Your task to perform on an android device: Clear all items from cart on amazon.com. Add "lg ultragear" to the cart on amazon.com, then select checkout. Image 0: 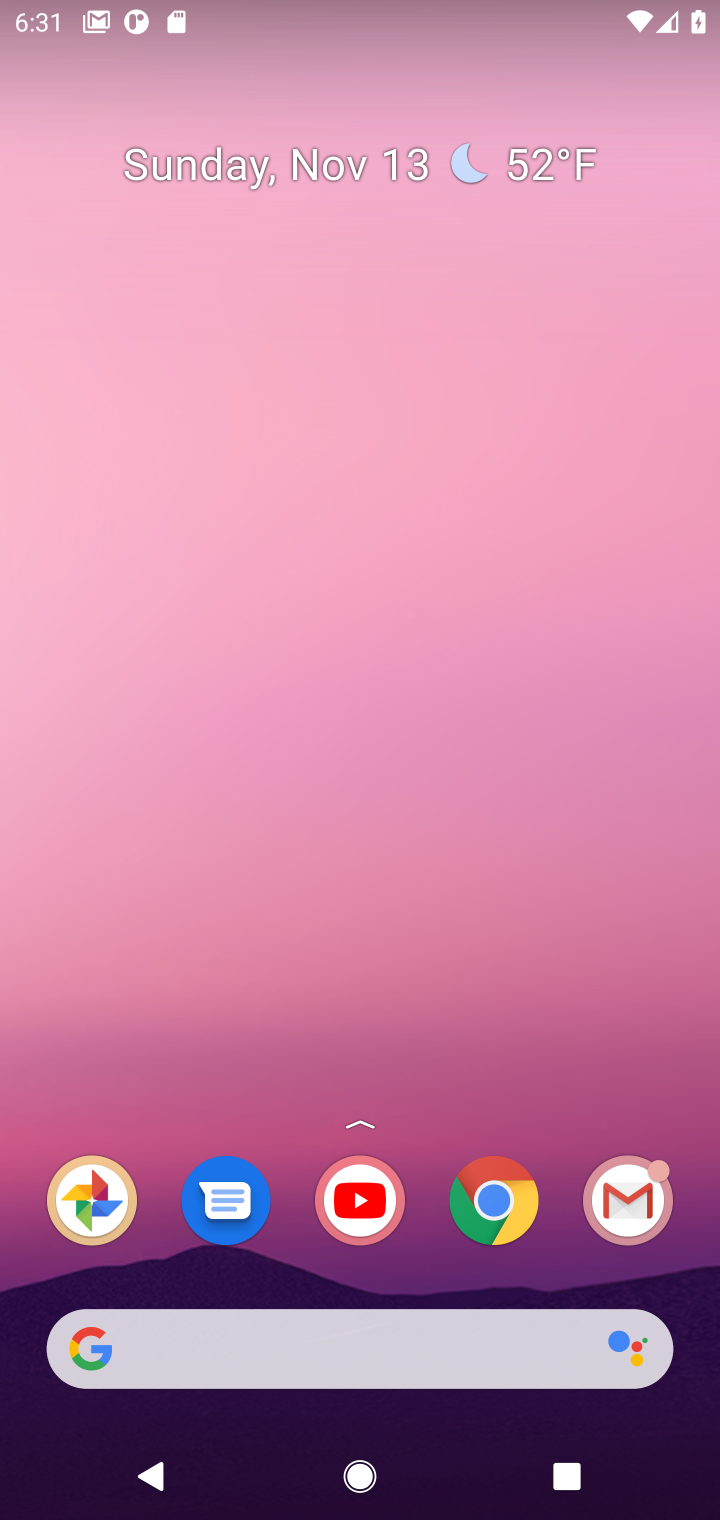
Step 0: click (502, 1188)
Your task to perform on an android device: Clear all items from cart on amazon.com. Add "lg ultragear" to the cart on amazon.com, then select checkout. Image 1: 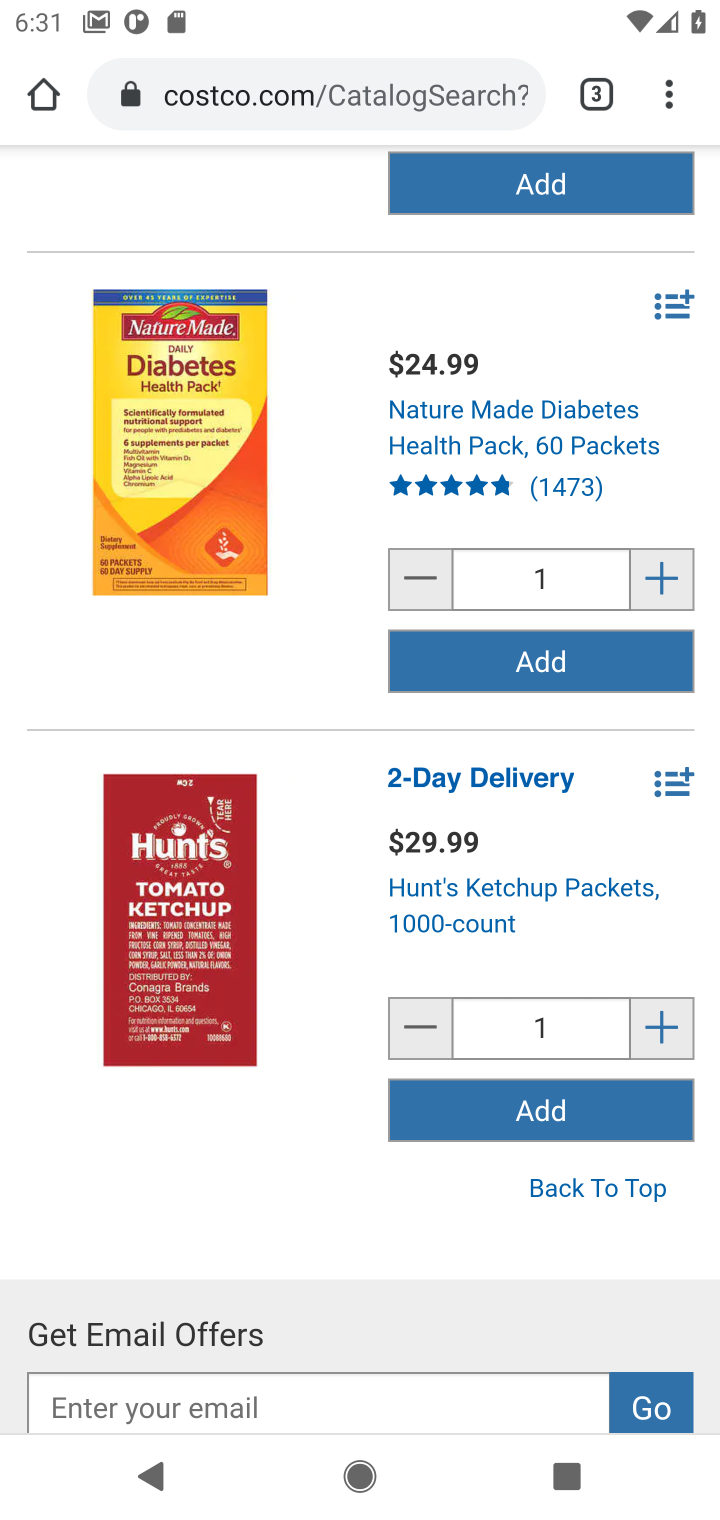
Step 1: click (595, 97)
Your task to perform on an android device: Clear all items from cart on amazon.com. Add "lg ultragear" to the cart on amazon.com, then select checkout. Image 2: 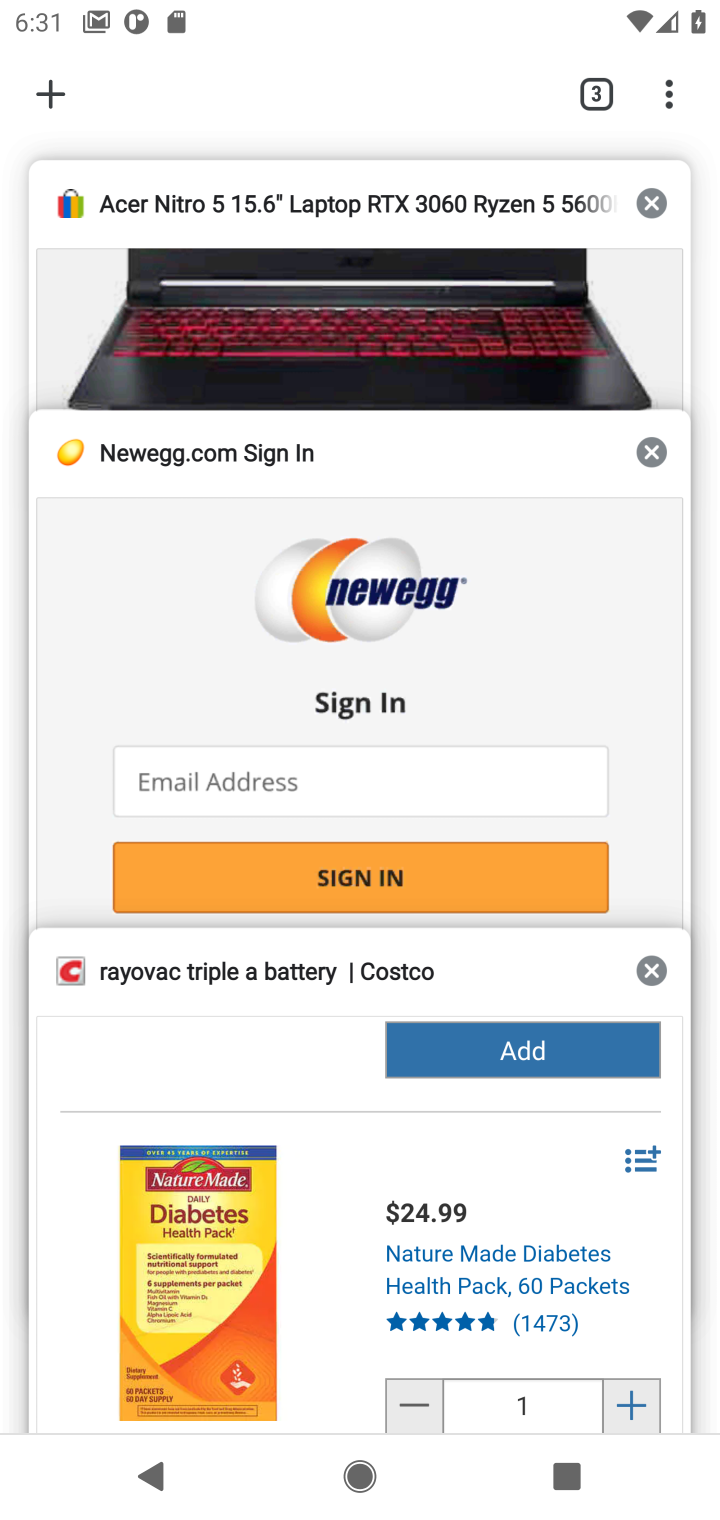
Step 2: click (50, 84)
Your task to perform on an android device: Clear all items from cart on amazon.com. Add "lg ultragear" to the cart on amazon.com, then select checkout. Image 3: 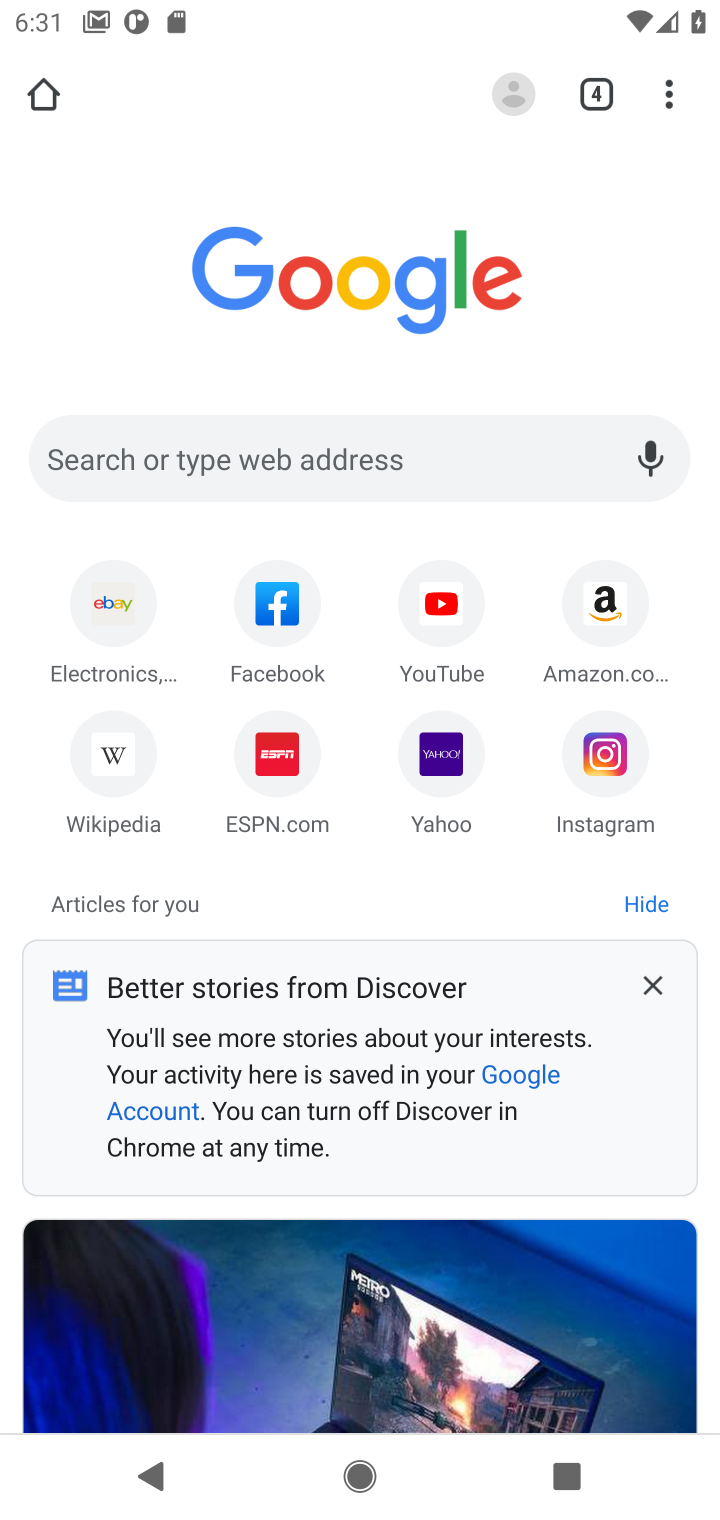
Step 3: click (612, 599)
Your task to perform on an android device: Clear all items from cart on amazon.com. Add "lg ultragear" to the cart on amazon.com, then select checkout. Image 4: 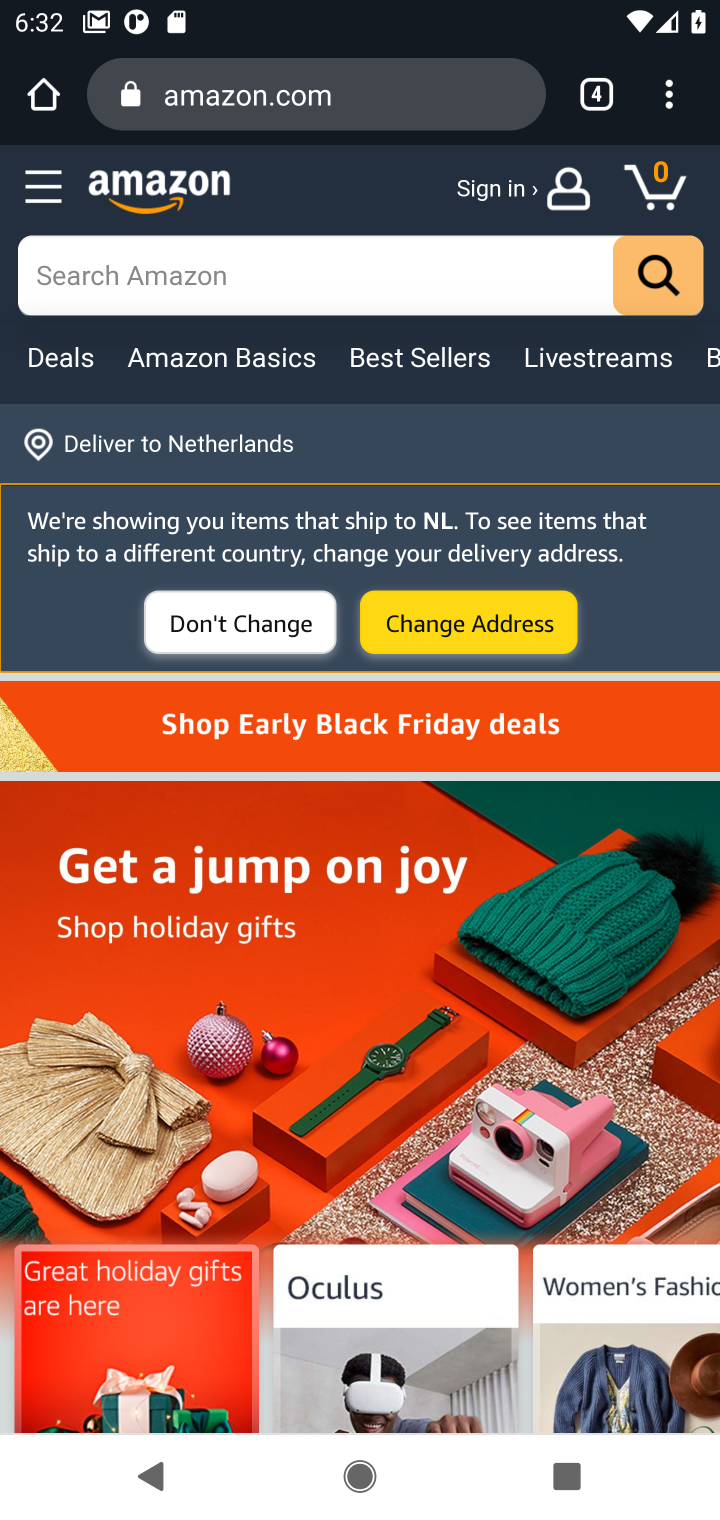
Step 4: click (151, 264)
Your task to perform on an android device: Clear all items from cart on amazon.com. Add "lg ultragear" to the cart on amazon.com, then select checkout. Image 5: 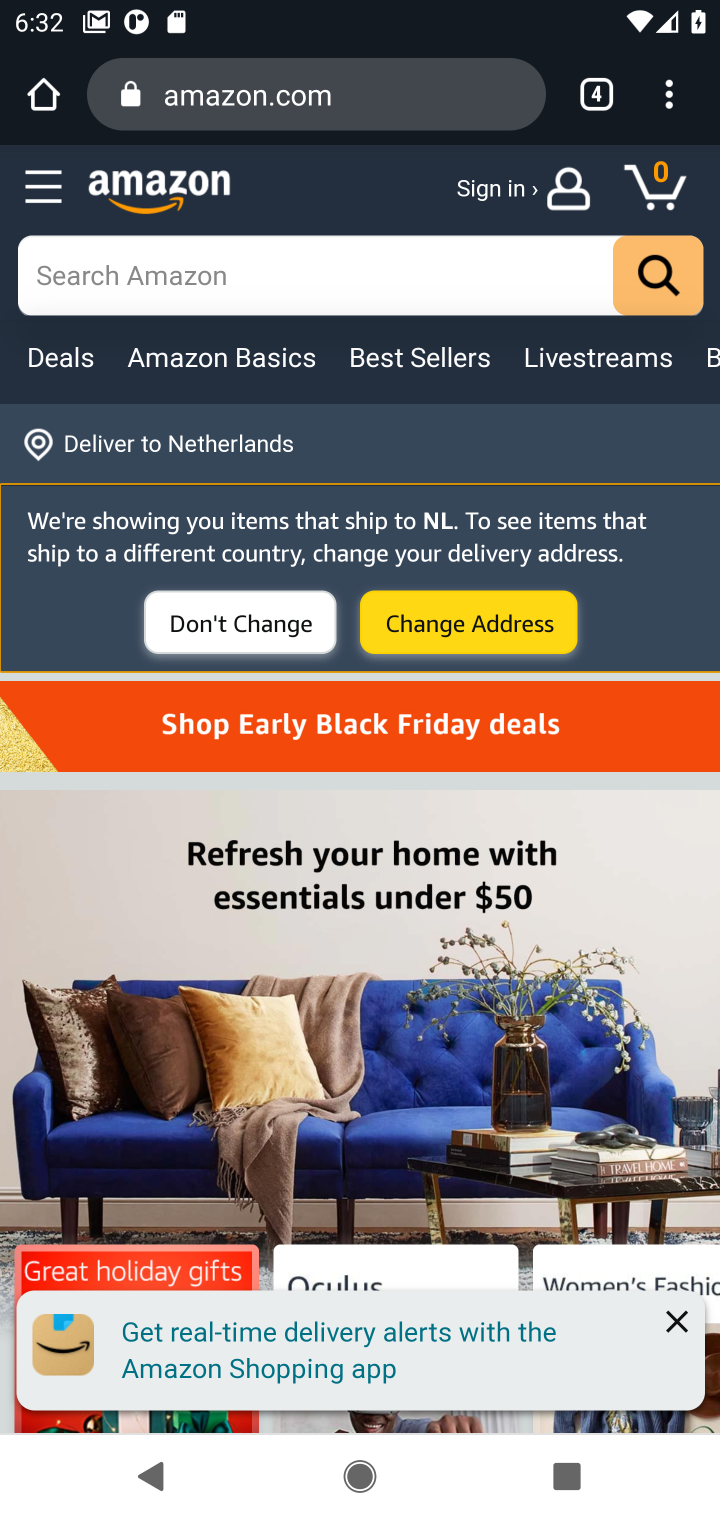
Step 5: type "lg ultragear"
Your task to perform on an android device: Clear all items from cart on amazon.com. Add "lg ultragear" to the cart on amazon.com, then select checkout. Image 6: 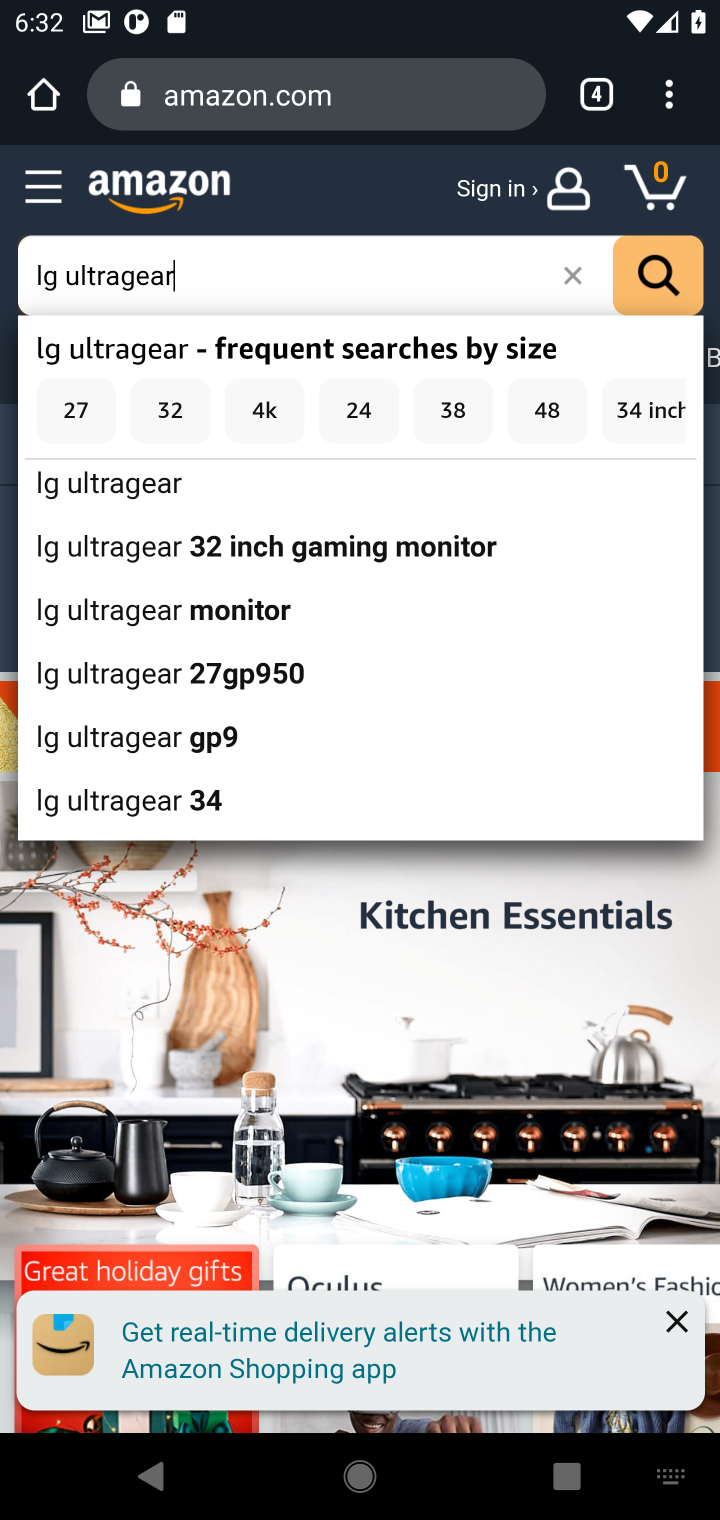
Step 6: click (104, 482)
Your task to perform on an android device: Clear all items from cart on amazon.com. Add "lg ultragear" to the cart on amazon.com, then select checkout. Image 7: 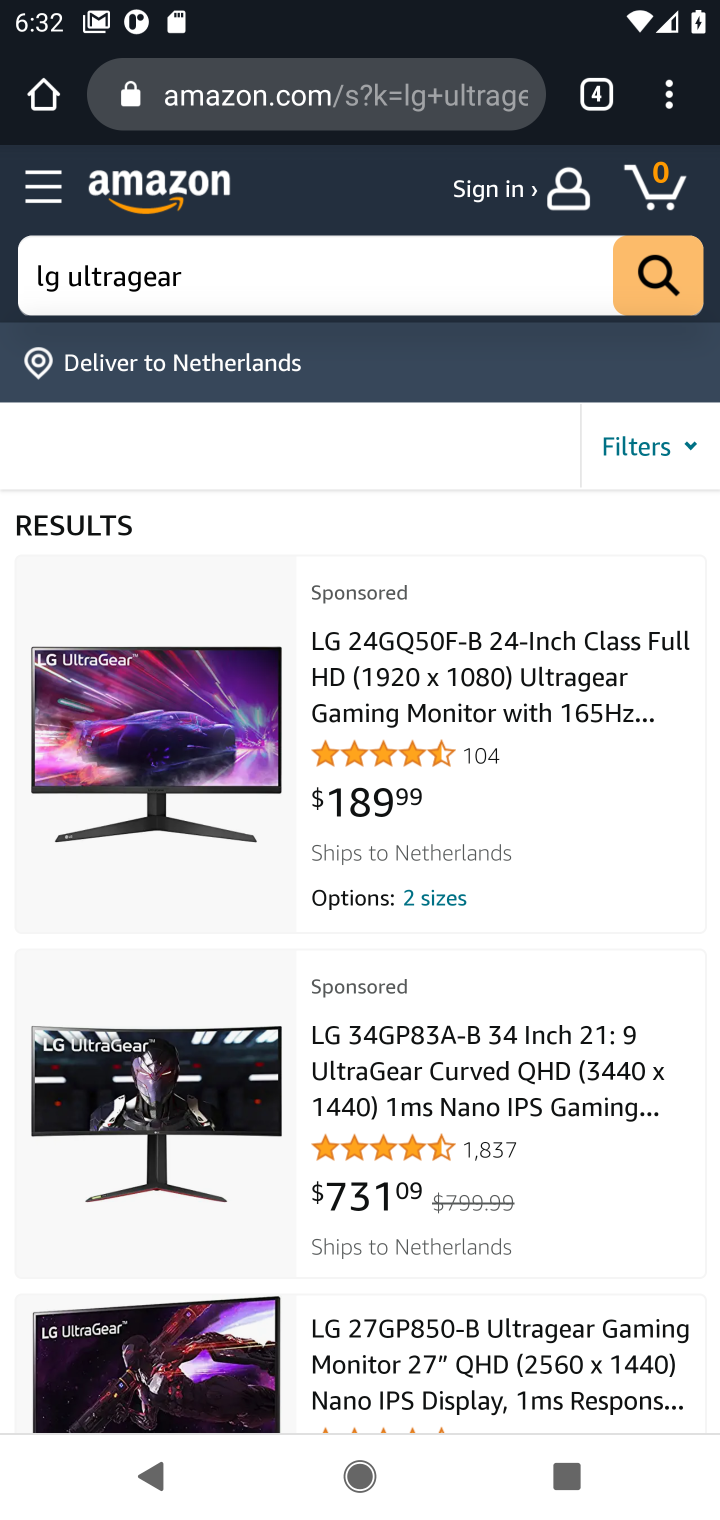
Step 7: click (483, 719)
Your task to perform on an android device: Clear all items from cart on amazon.com. Add "lg ultragear" to the cart on amazon.com, then select checkout. Image 8: 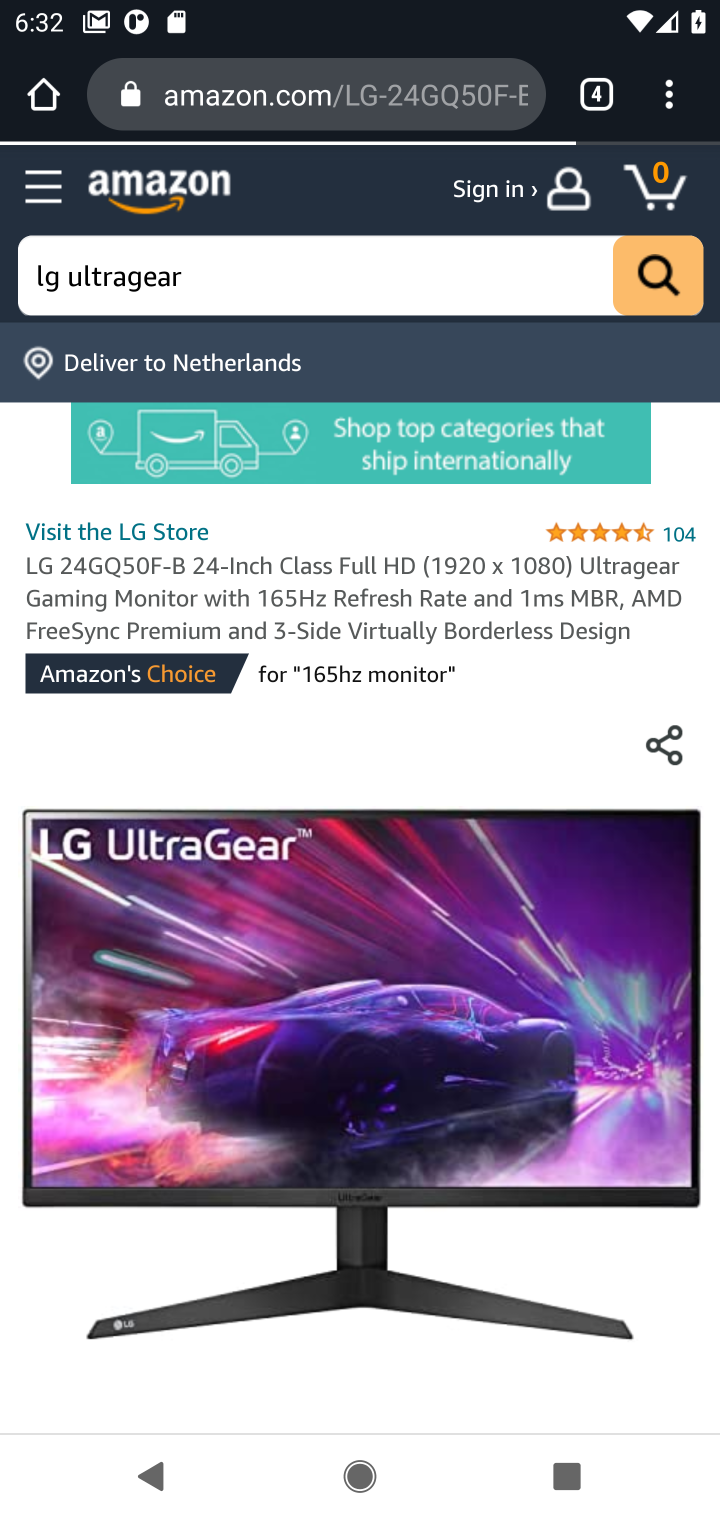
Step 8: drag from (535, 863) to (549, 127)
Your task to perform on an android device: Clear all items from cart on amazon.com. Add "lg ultragear" to the cart on amazon.com, then select checkout. Image 9: 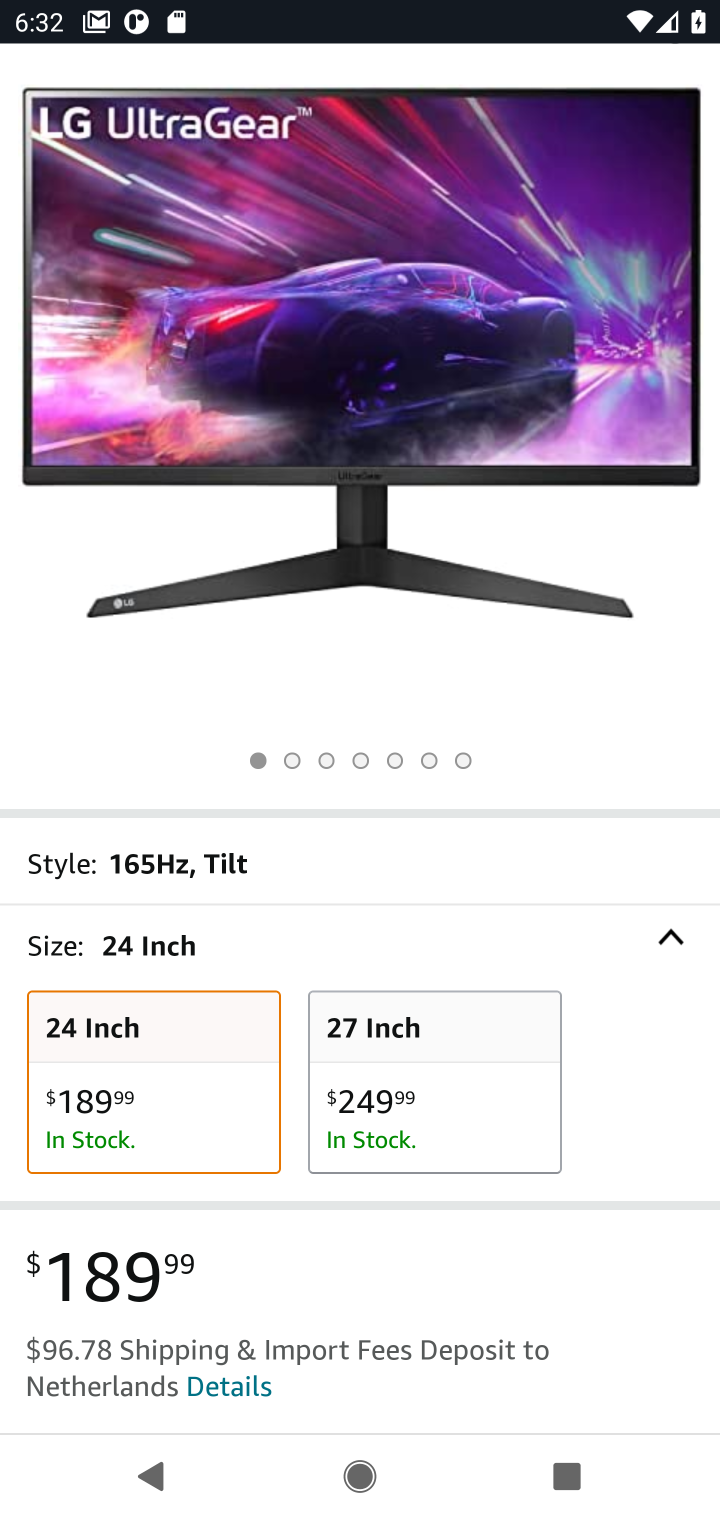
Step 9: drag from (486, 899) to (589, 224)
Your task to perform on an android device: Clear all items from cart on amazon.com. Add "lg ultragear" to the cart on amazon.com, then select checkout. Image 10: 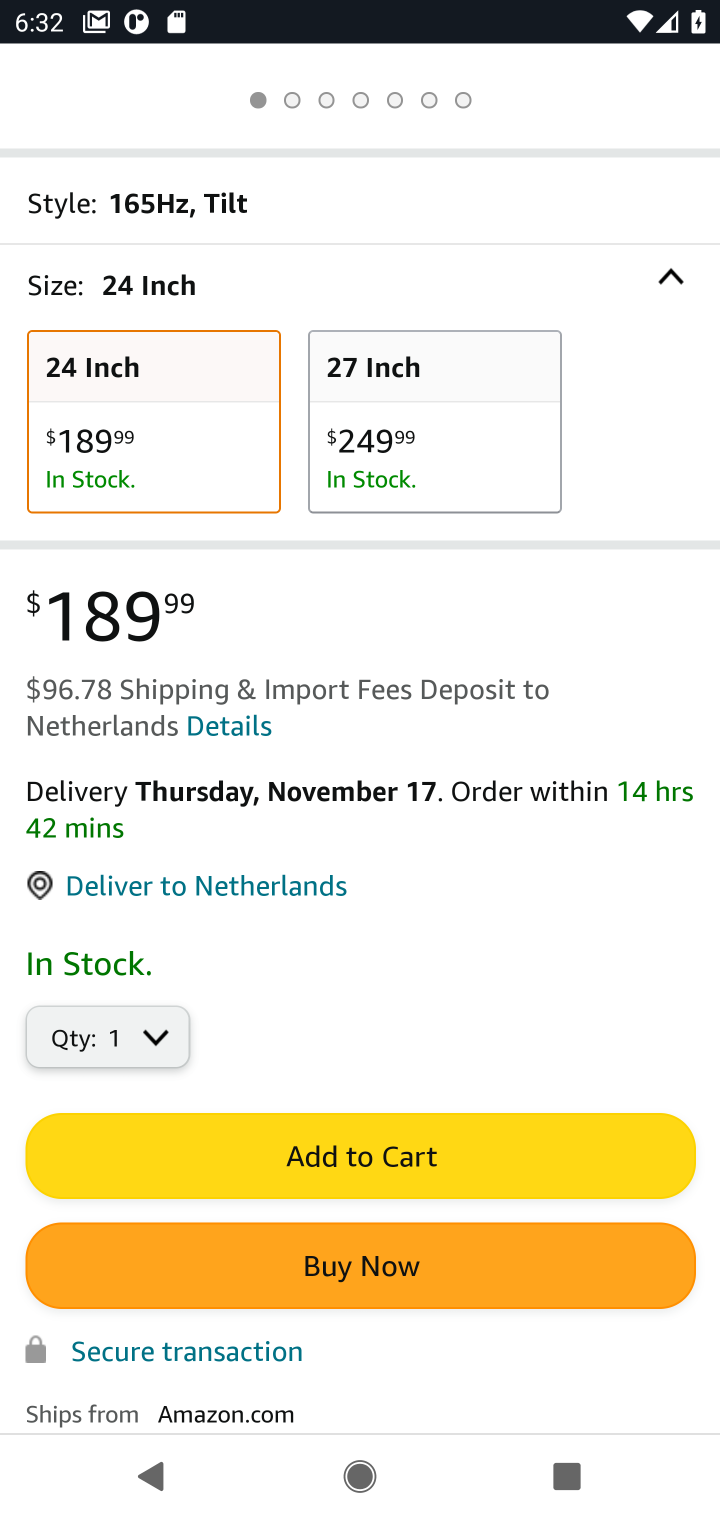
Step 10: click (360, 1156)
Your task to perform on an android device: Clear all items from cart on amazon.com. Add "lg ultragear" to the cart on amazon.com, then select checkout. Image 11: 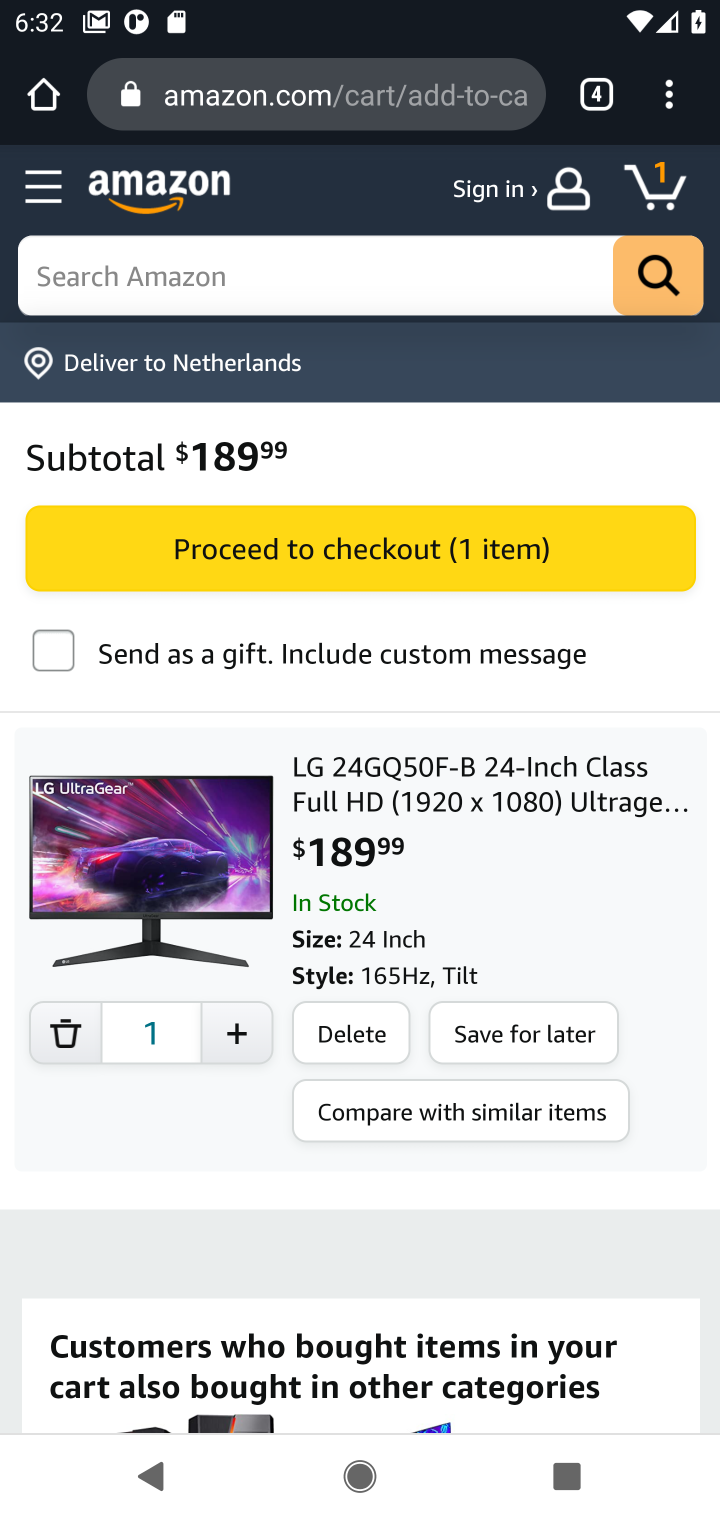
Step 11: task complete